Your task to perform on an android device: Show me the alarms in the clock app Image 0: 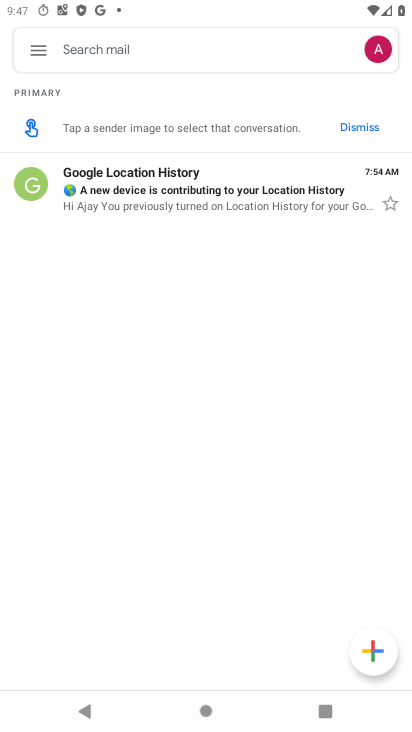
Step 0: press home button
Your task to perform on an android device: Show me the alarms in the clock app Image 1: 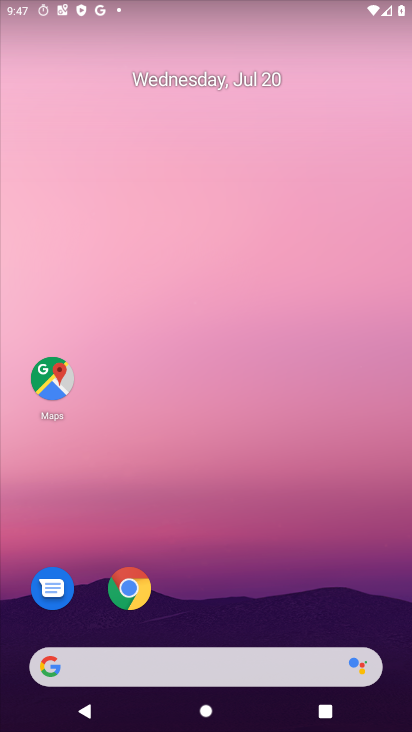
Step 1: drag from (295, 663) to (342, 41)
Your task to perform on an android device: Show me the alarms in the clock app Image 2: 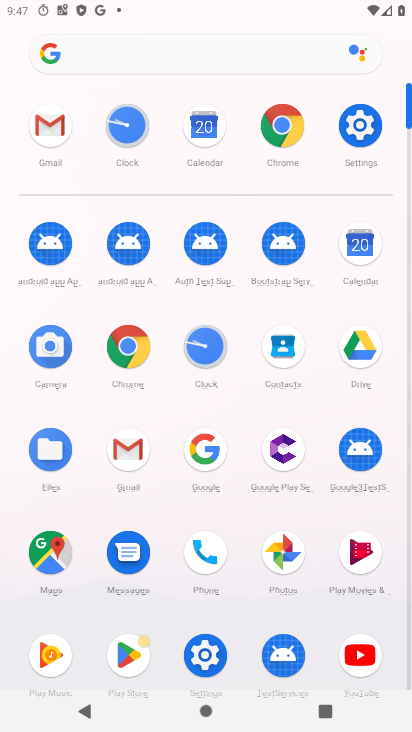
Step 2: click (193, 331)
Your task to perform on an android device: Show me the alarms in the clock app Image 3: 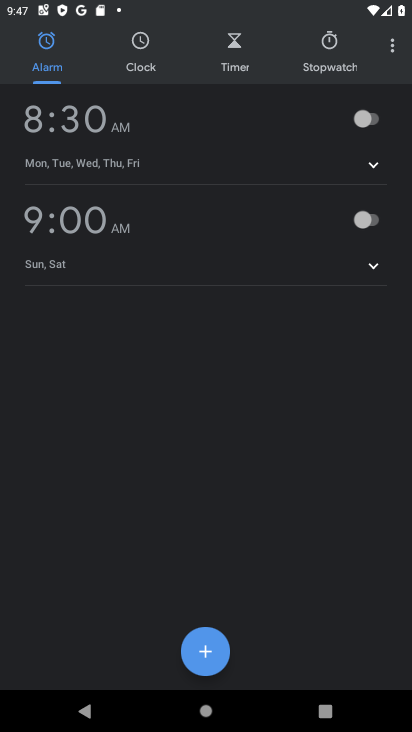
Step 3: task complete